Your task to perform on an android device: Clear the shopping cart on target. Add amazon basics triple a to the cart on target Image 0: 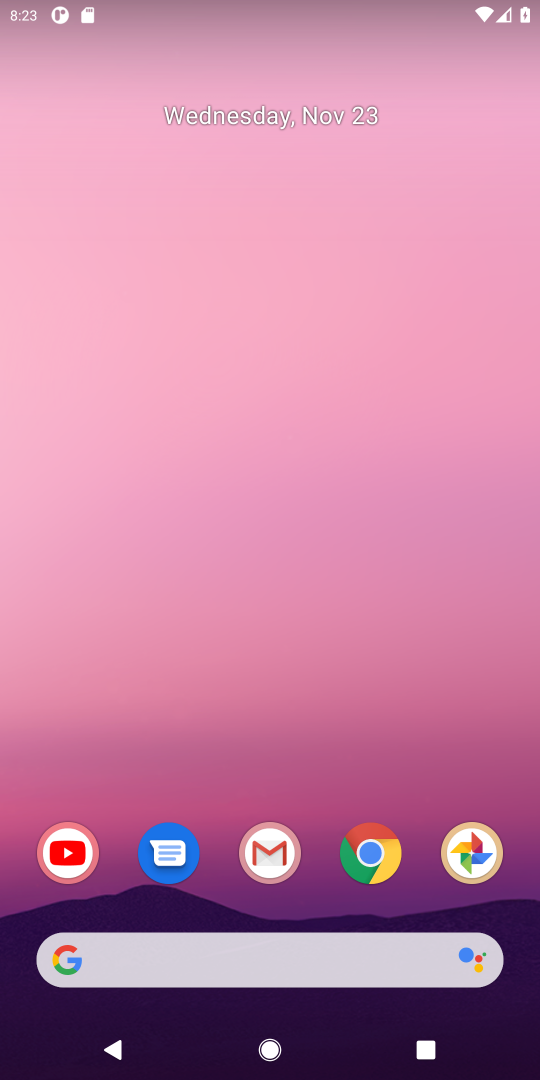
Step 0: click (381, 860)
Your task to perform on an android device: Clear the shopping cart on target. Add amazon basics triple a to the cart on target Image 1: 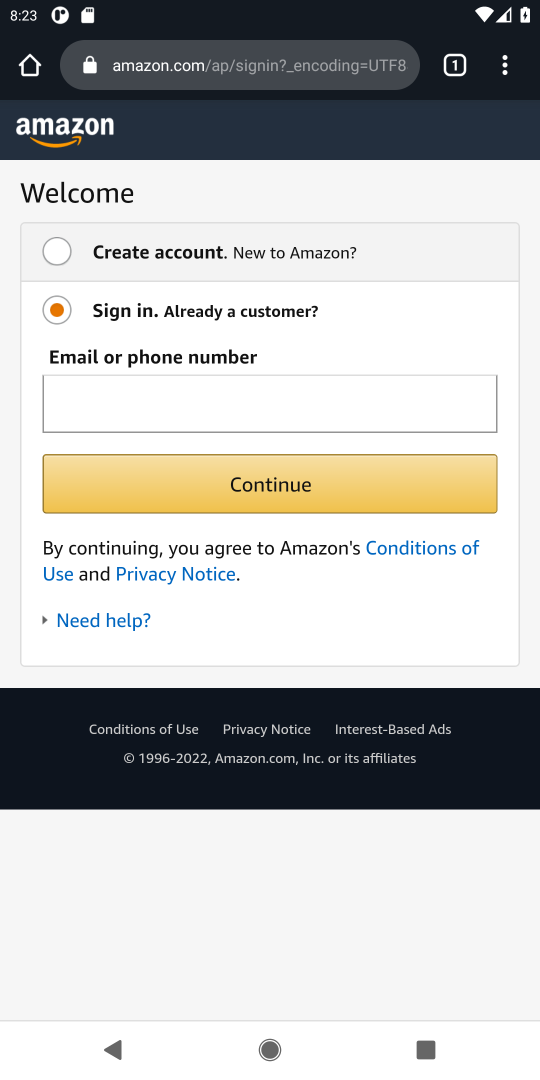
Step 1: click (195, 70)
Your task to perform on an android device: Clear the shopping cart on target. Add amazon basics triple a to the cart on target Image 2: 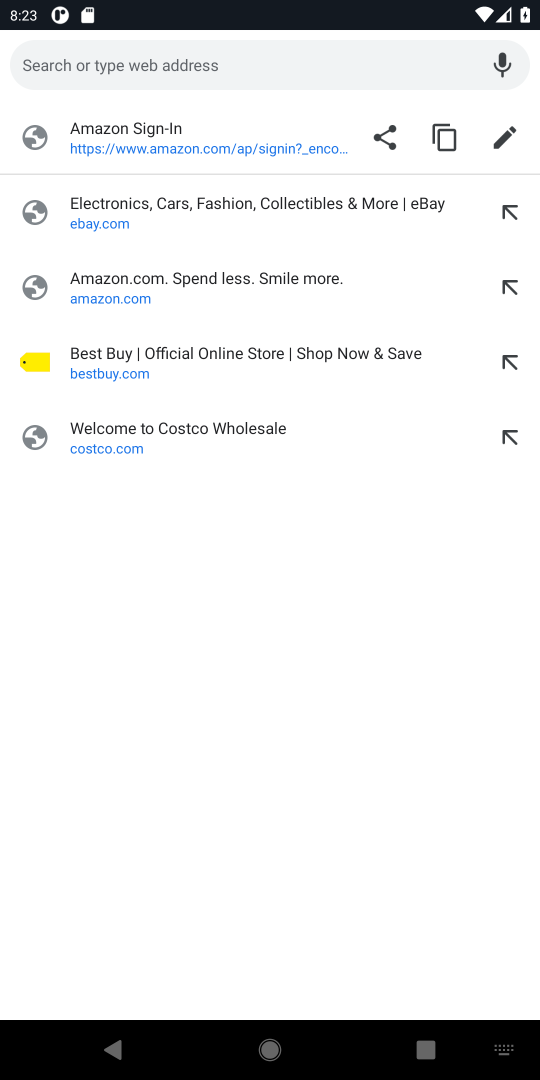
Step 2: type "target.com"
Your task to perform on an android device: Clear the shopping cart on target. Add amazon basics triple a to the cart on target Image 3: 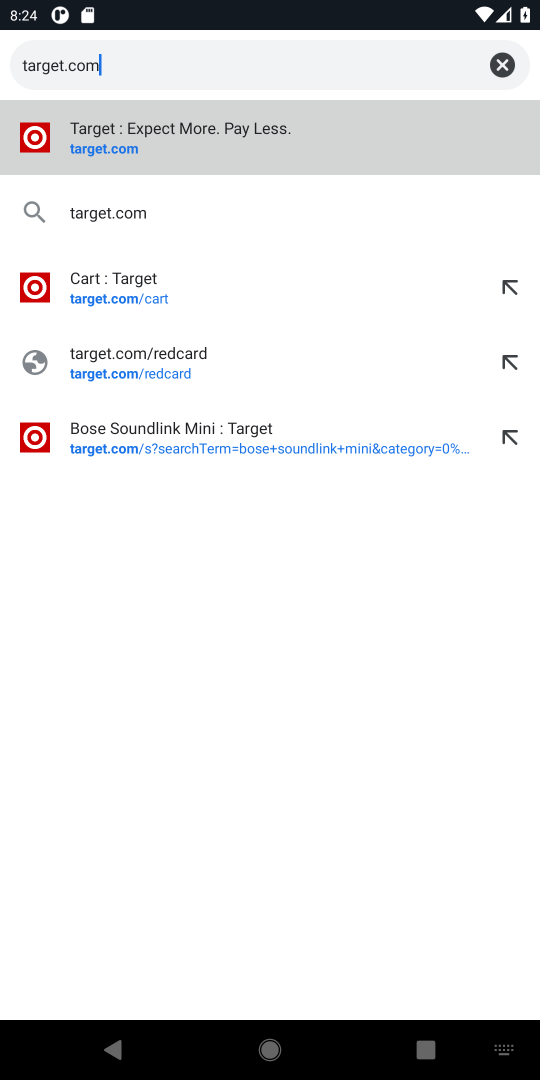
Step 3: click (107, 148)
Your task to perform on an android device: Clear the shopping cart on target. Add amazon basics triple a to the cart on target Image 4: 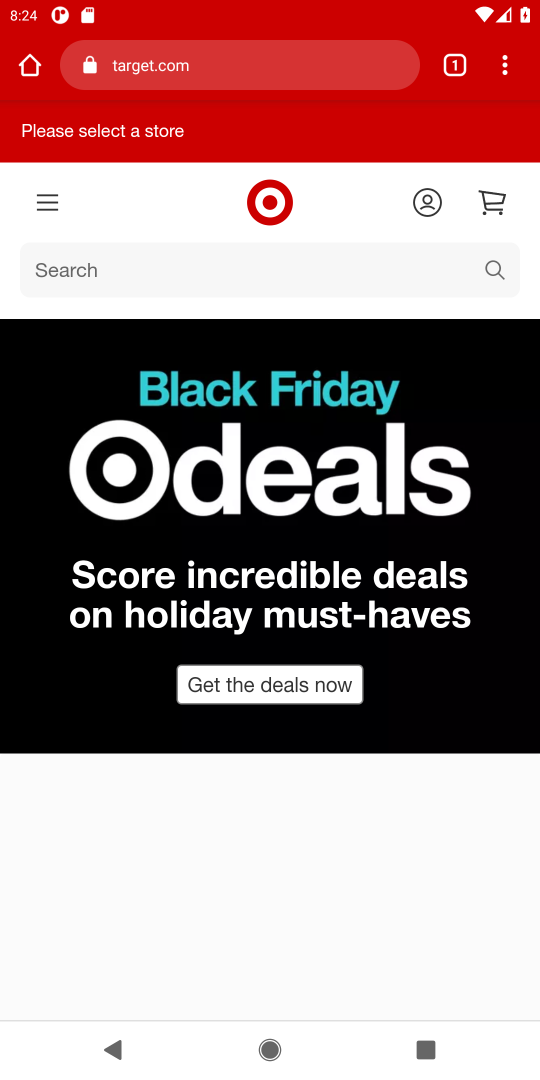
Step 4: click (491, 207)
Your task to perform on an android device: Clear the shopping cart on target. Add amazon basics triple a to the cart on target Image 5: 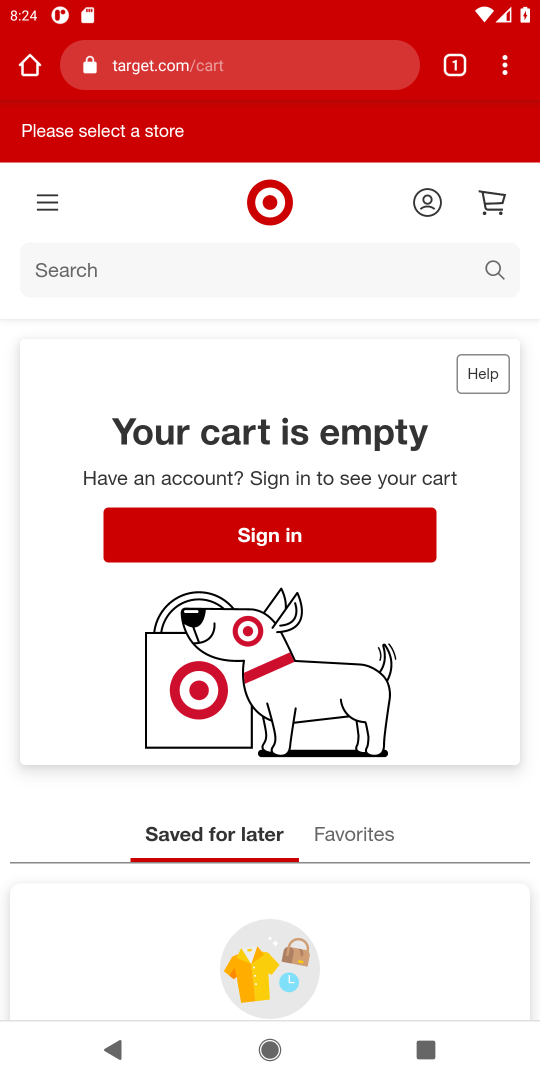
Step 5: click (493, 270)
Your task to perform on an android device: Clear the shopping cart on target. Add amazon basics triple a to the cart on target Image 6: 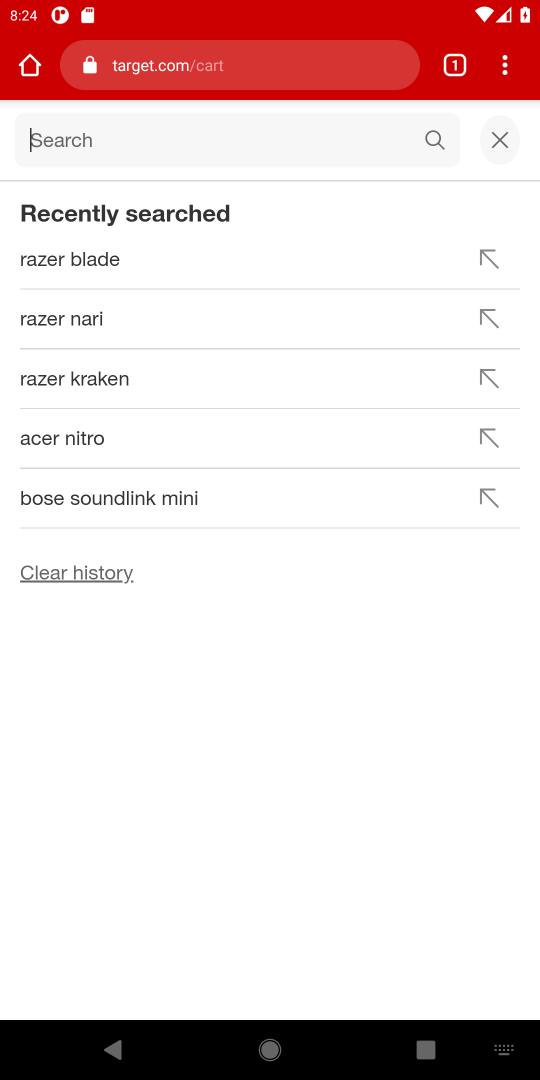
Step 6: type "amazon basics triple a"
Your task to perform on an android device: Clear the shopping cart on target. Add amazon basics triple a to the cart on target Image 7: 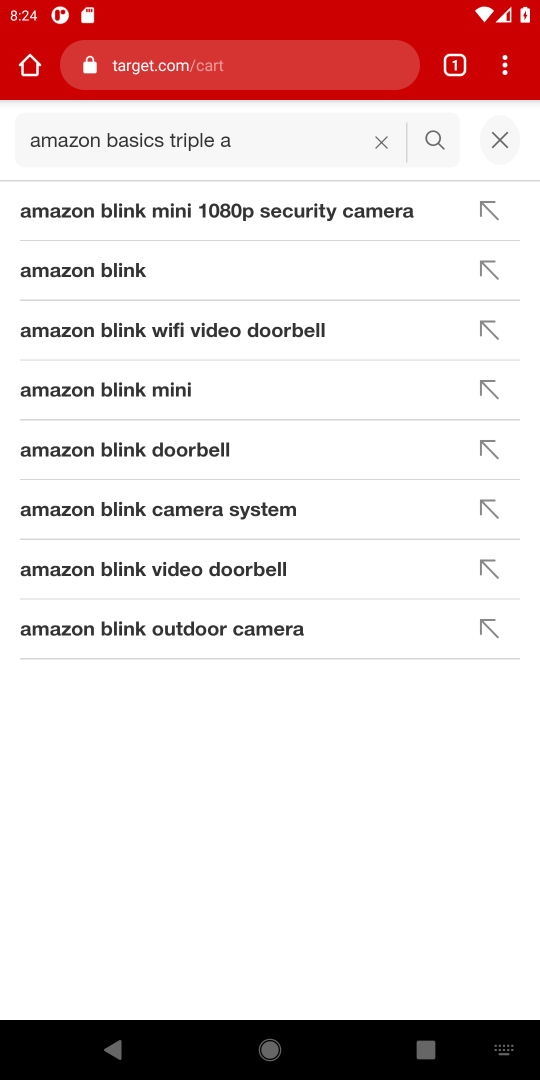
Step 7: click (430, 134)
Your task to perform on an android device: Clear the shopping cart on target. Add amazon basics triple a to the cart on target Image 8: 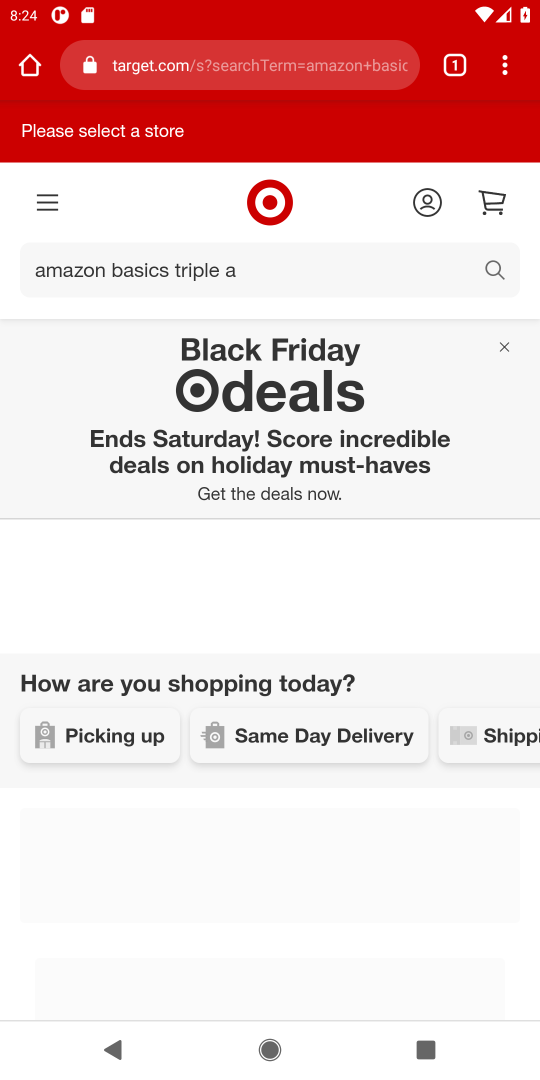
Step 8: task complete